Your task to perform on an android device: find which apps use the phone's location Image 0: 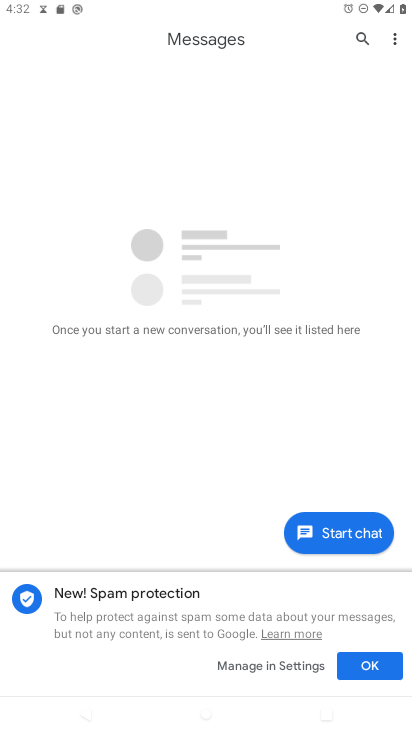
Step 0: press home button
Your task to perform on an android device: find which apps use the phone's location Image 1: 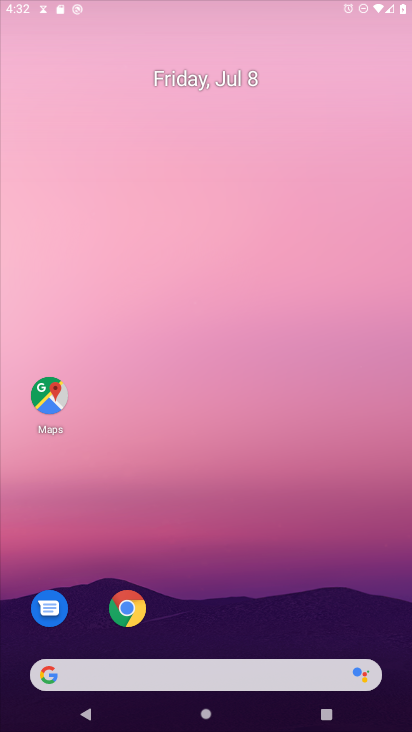
Step 1: drag from (311, 623) to (316, 2)
Your task to perform on an android device: find which apps use the phone's location Image 2: 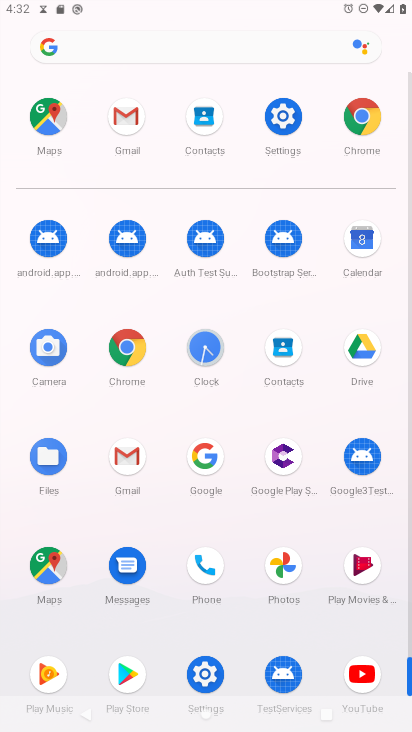
Step 2: click (292, 118)
Your task to perform on an android device: find which apps use the phone's location Image 3: 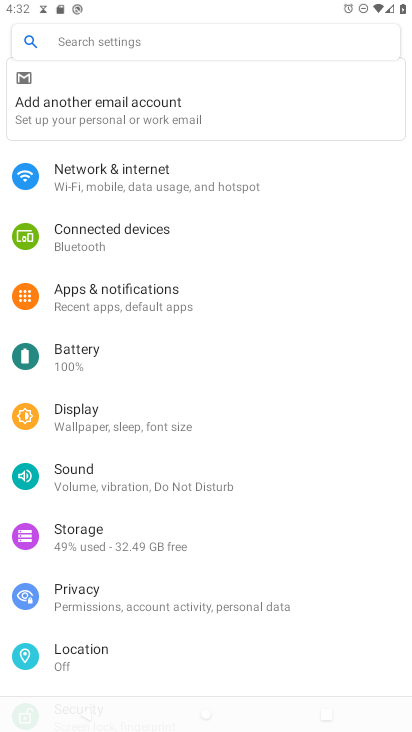
Step 3: drag from (156, 640) to (150, 194)
Your task to perform on an android device: find which apps use the phone's location Image 4: 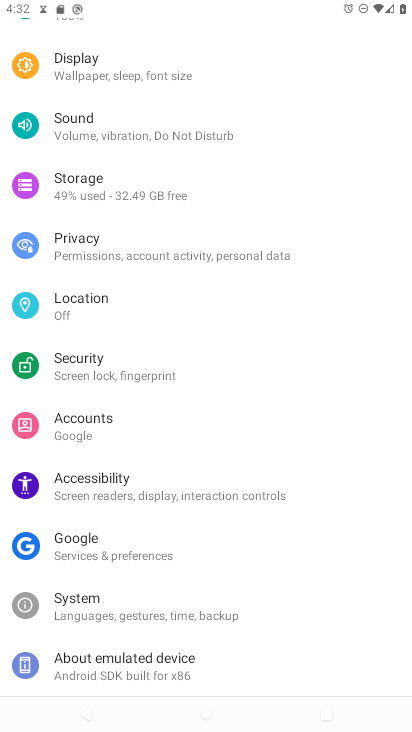
Step 4: drag from (261, 281) to (390, 647)
Your task to perform on an android device: find which apps use the phone's location Image 5: 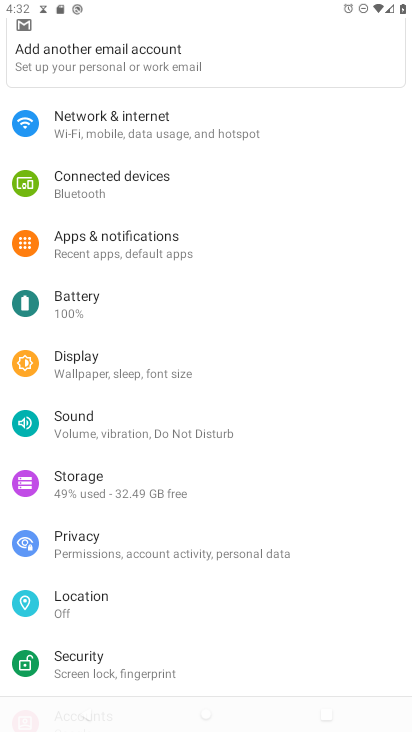
Step 5: click (119, 613)
Your task to perform on an android device: find which apps use the phone's location Image 6: 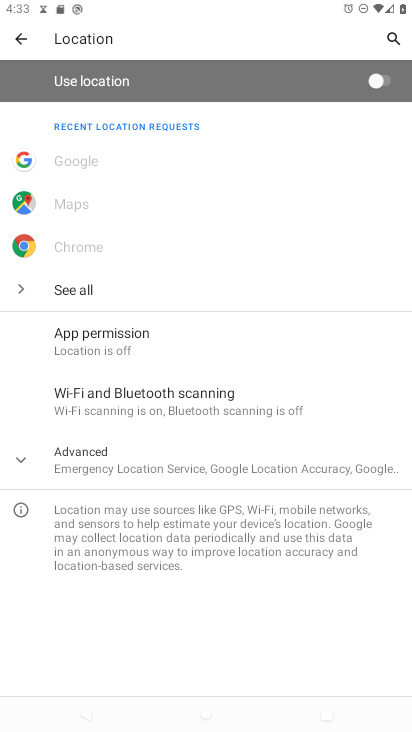
Step 6: click (176, 459)
Your task to perform on an android device: find which apps use the phone's location Image 7: 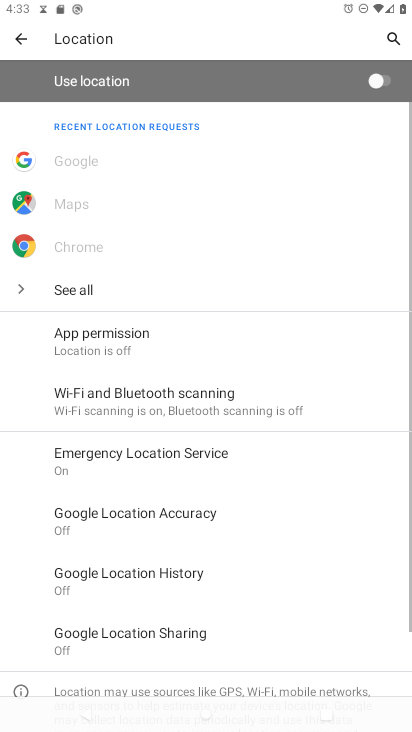
Step 7: click (154, 357)
Your task to perform on an android device: find which apps use the phone's location Image 8: 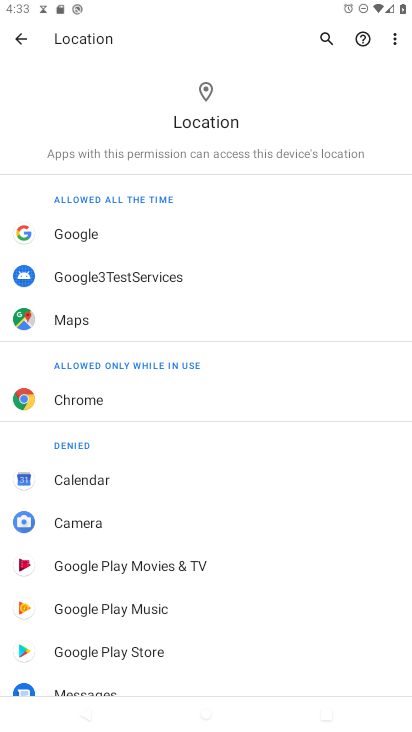
Step 8: task complete